Your task to perform on an android device: Open Amazon Image 0: 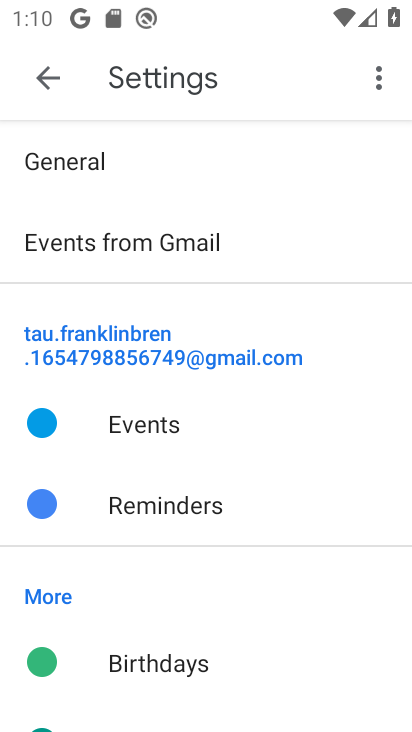
Step 0: press back button
Your task to perform on an android device: Open Amazon Image 1: 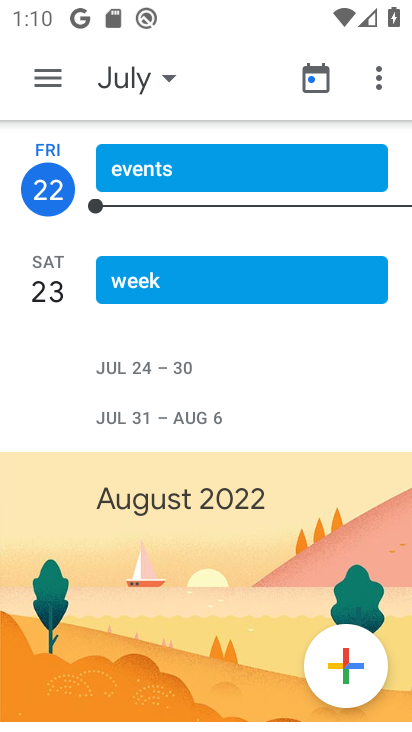
Step 1: press back button
Your task to perform on an android device: Open Amazon Image 2: 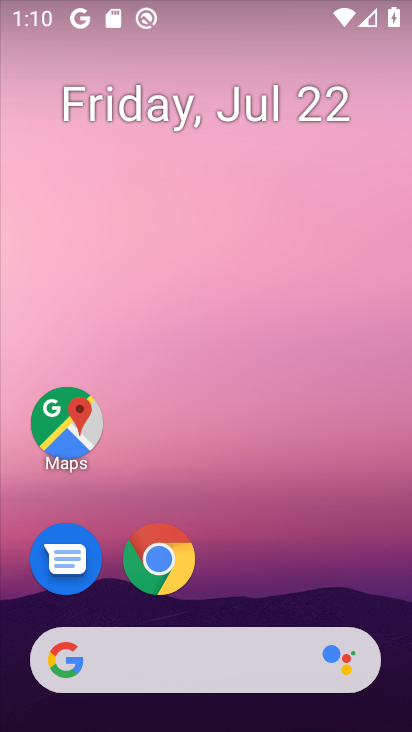
Step 2: drag from (233, 592) to (340, 43)
Your task to perform on an android device: Open Amazon Image 3: 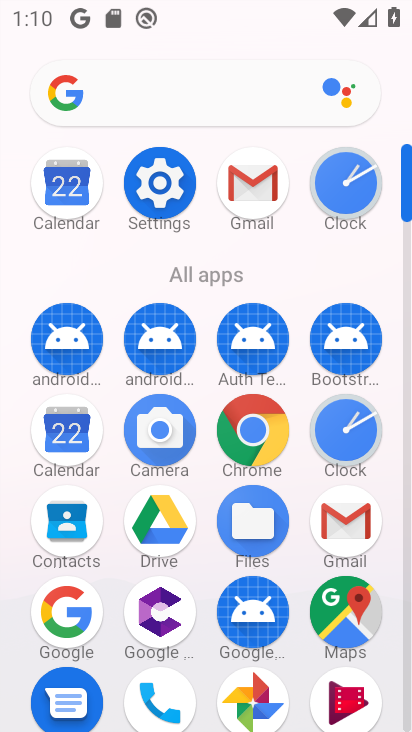
Step 3: click (256, 442)
Your task to perform on an android device: Open Amazon Image 4: 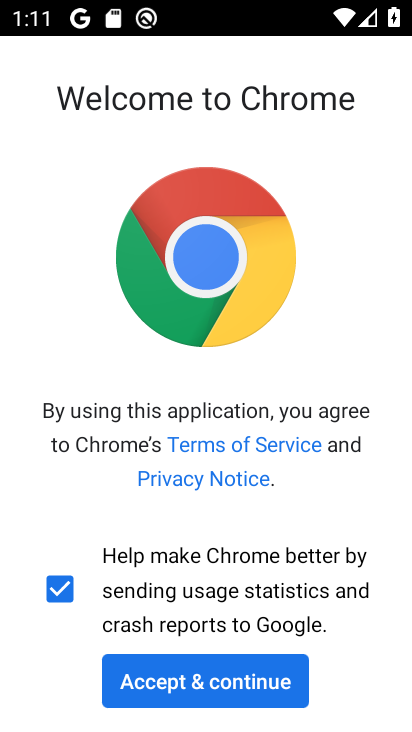
Step 4: click (166, 675)
Your task to perform on an android device: Open Amazon Image 5: 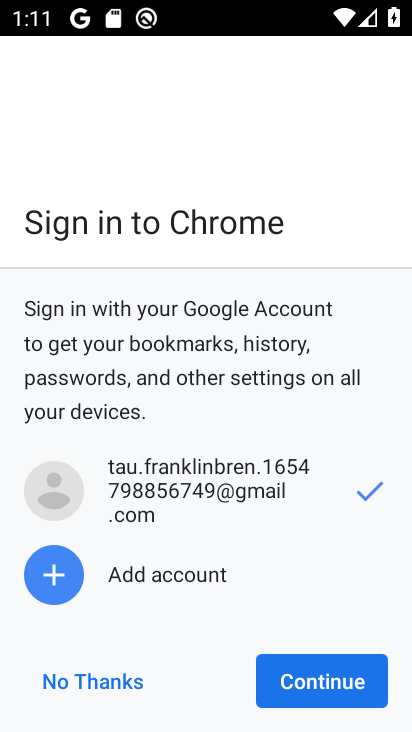
Step 5: click (314, 681)
Your task to perform on an android device: Open Amazon Image 6: 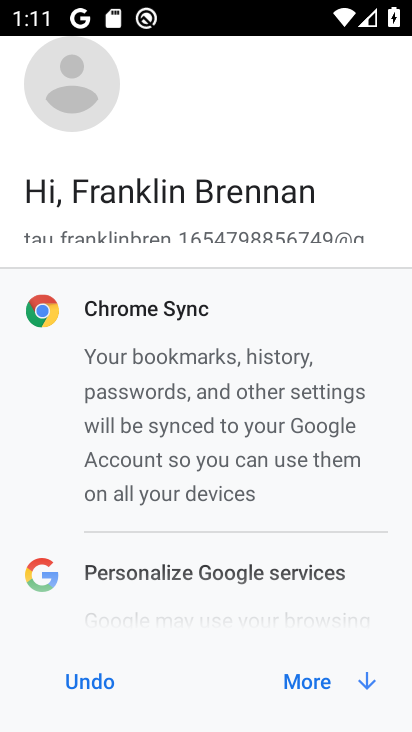
Step 6: click (314, 681)
Your task to perform on an android device: Open Amazon Image 7: 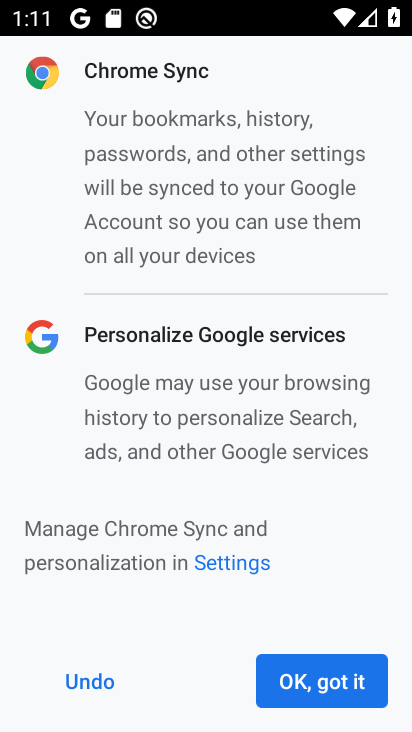
Step 7: click (314, 681)
Your task to perform on an android device: Open Amazon Image 8: 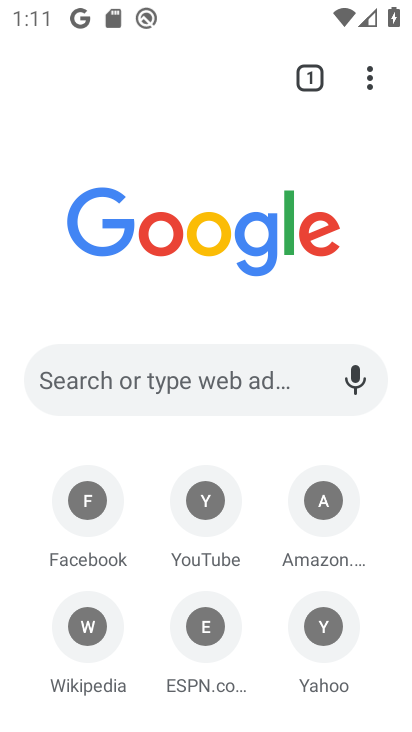
Step 8: click (320, 510)
Your task to perform on an android device: Open Amazon Image 9: 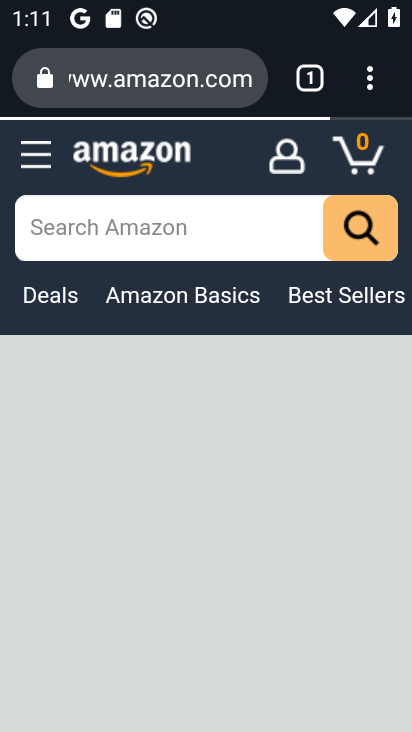
Step 9: task complete